Your task to perform on an android device: Open calendar and show me the second week of next month Image 0: 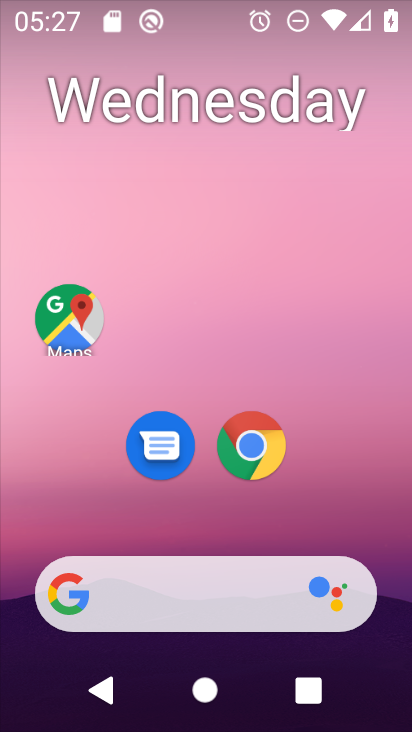
Step 0: click (186, 97)
Your task to perform on an android device: Open calendar and show me the second week of next month Image 1: 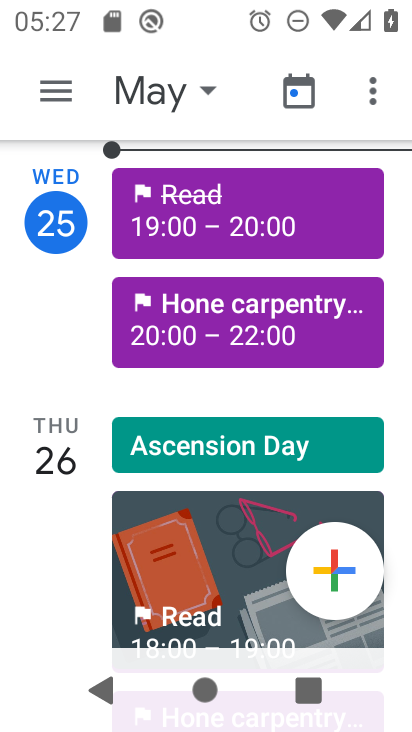
Step 1: click (185, 107)
Your task to perform on an android device: Open calendar and show me the second week of next month Image 2: 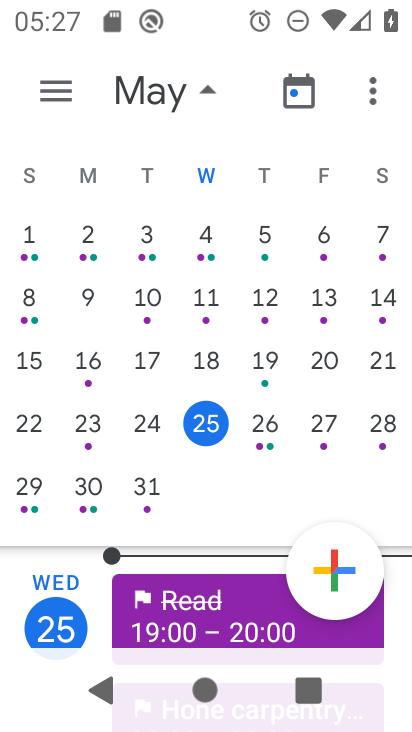
Step 2: drag from (367, 490) to (59, 467)
Your task to perform on an android device: Open calendar and show me the second week of next month Image 3: 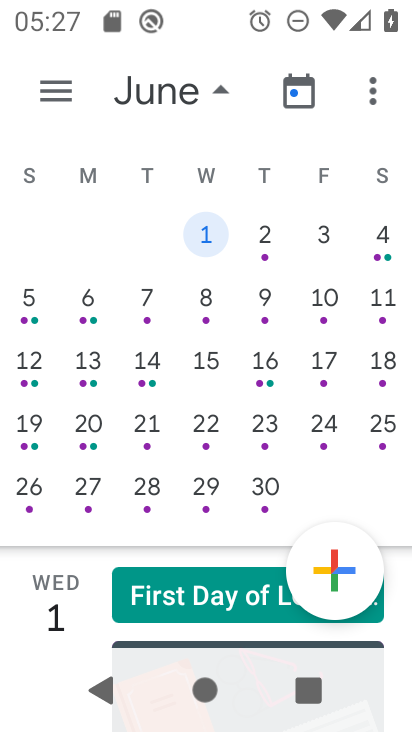
Step 3: click (204, 310)
Your task to perform on an android device: Open calendar and show me the second week of next month Image 4: 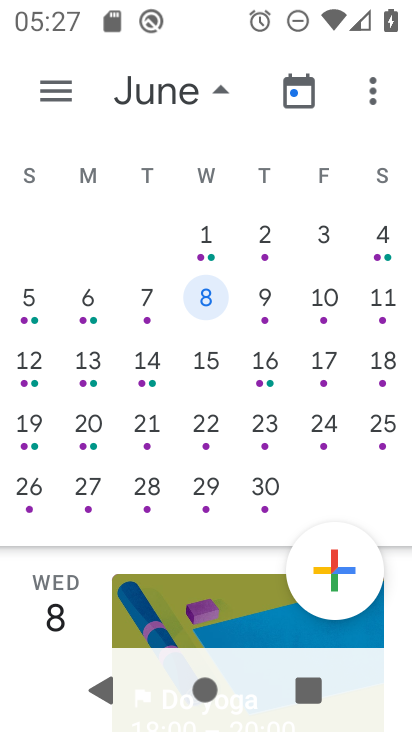
Step 4: click (204, 310)
Your task to perform on an android device: Open calendar and show me the second week of next month Image 5: 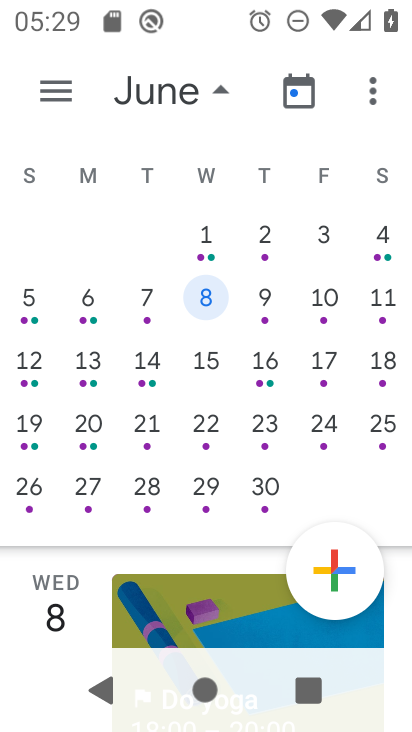
Step 5: task complete